Your task to perform on an android device: change the clock display to analog Image 0: 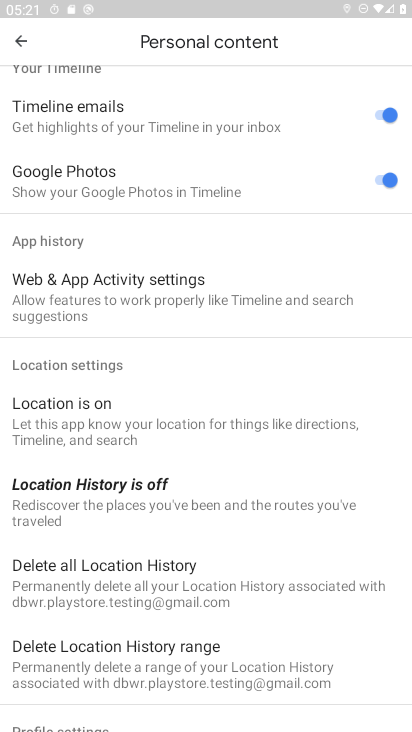
Step 0: press home button
Your task to perform on an android device: change the clock display to analog Image 1: 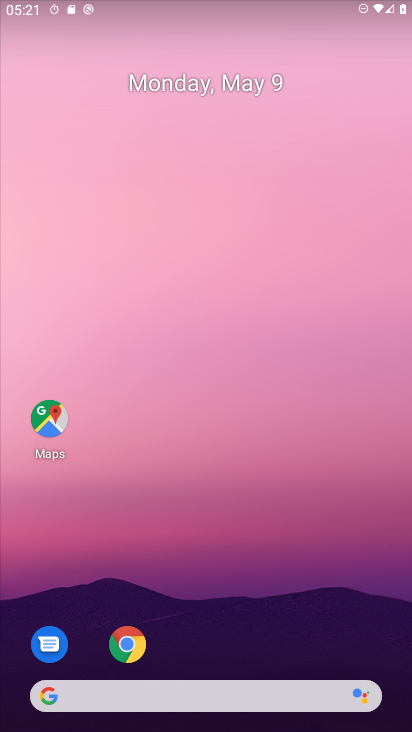
Step 1: drag from (176, 518) to (220, 6)
Your task to perform on an android device: change the clock display to analog Image 2: 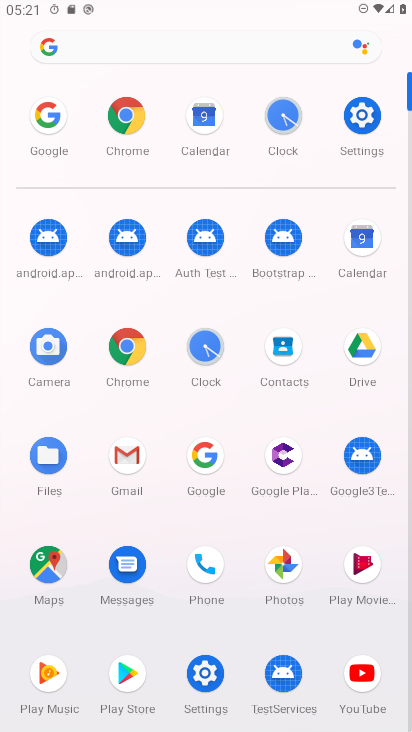
Step 2: click (284, 115)
Your task to perform on an android device: change the clock display to analog Image 3: 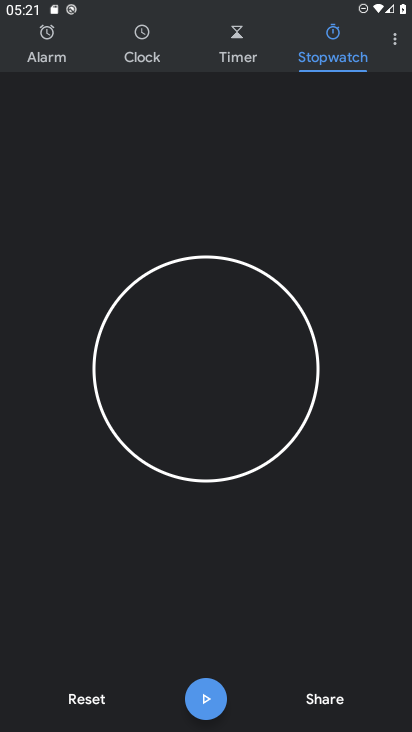
Step 3: click (400, 40)
Your task to perform on an android device: change the clock display to analog Image 4: 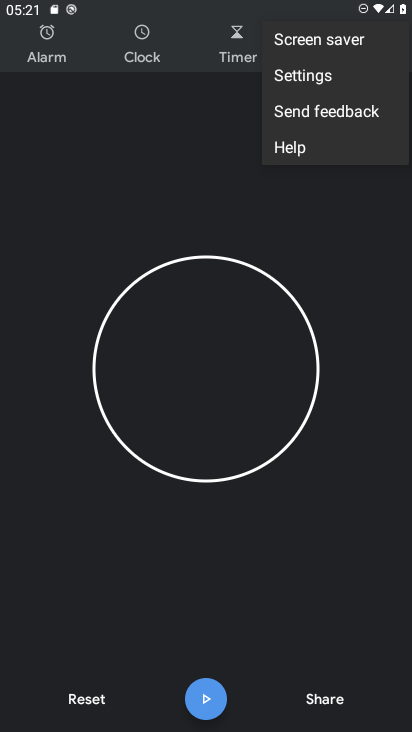
Step 4: click (295, 75)
Your task to perform on an android device: change the clock display to analog Image 5: 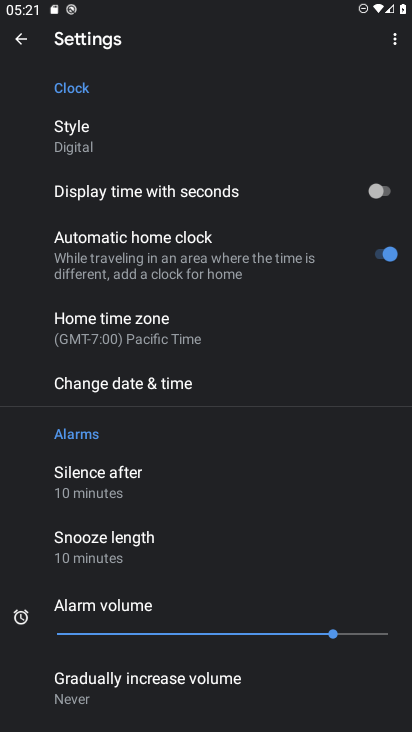
Step 5: click (80, 143)
Your task to perform on an android device: change the clock display to analog Image 6: 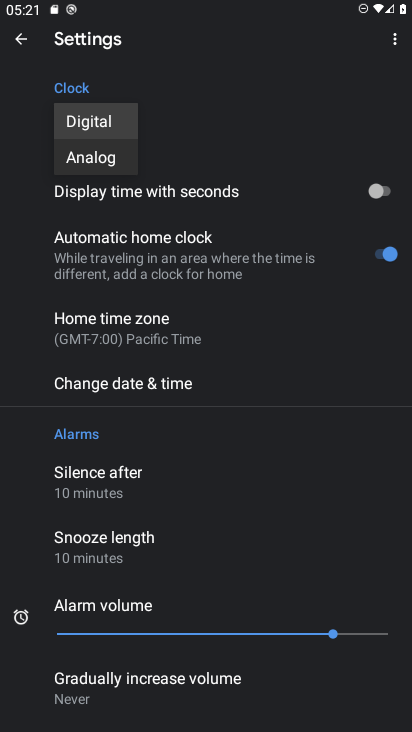
Step 6: click (86, 152)
Your task to perform on an android device: change the clock display to analog Image 7: 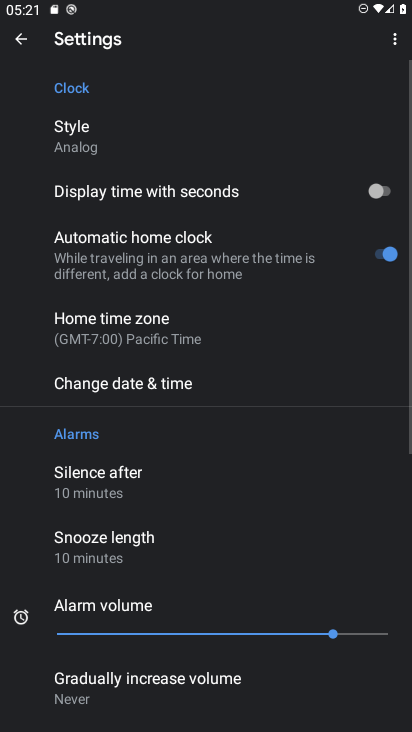
Step 7: task complete